Your task to perform on an android device: Open the stopwatch Image 0: 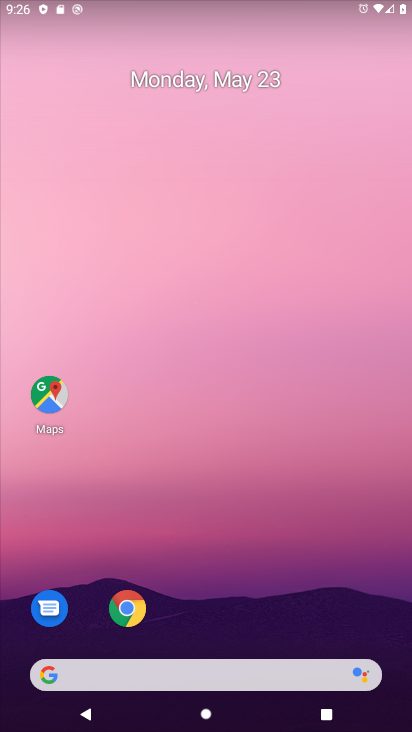
Step 0: drag from (238, 620) to (200, 226)
Your task to perform on an android device: Open the stopwatch Image 1: 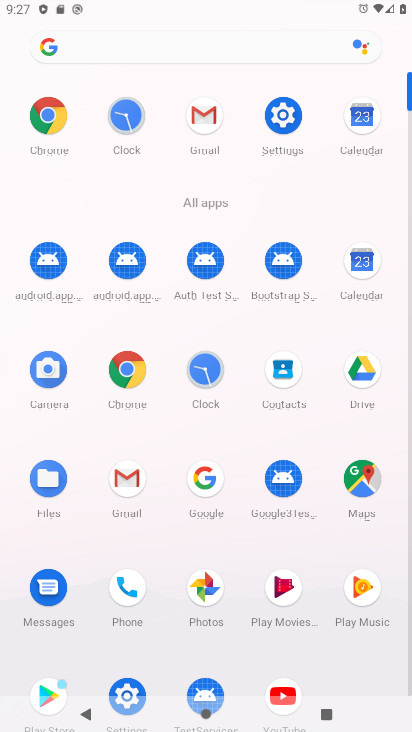
Step 1: click (119, 123)
Your task to perform on an android device: Open the stopwatch Image 2: 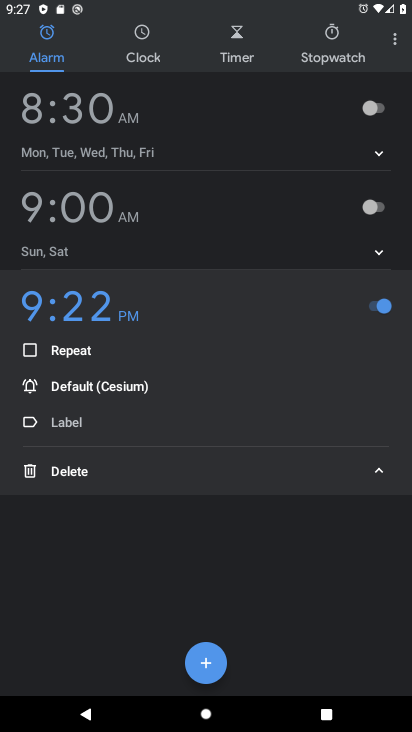
Step 2: click (314, 63)
Your task to perform on an android device: Open the stopwatch Image 3: 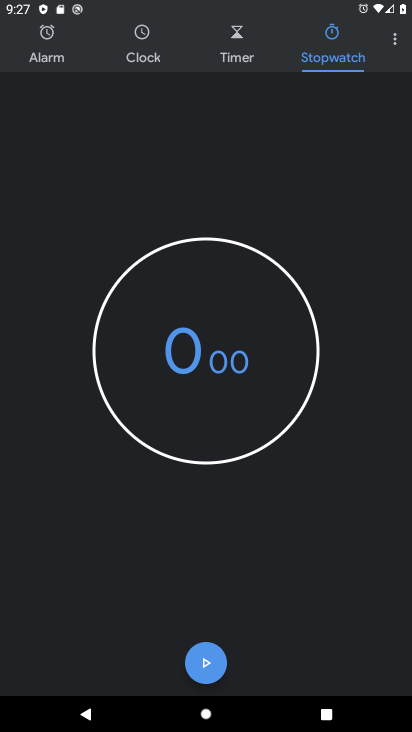
Step 3: task complete